Your task to perform on an android device: toggle location history Image 0: 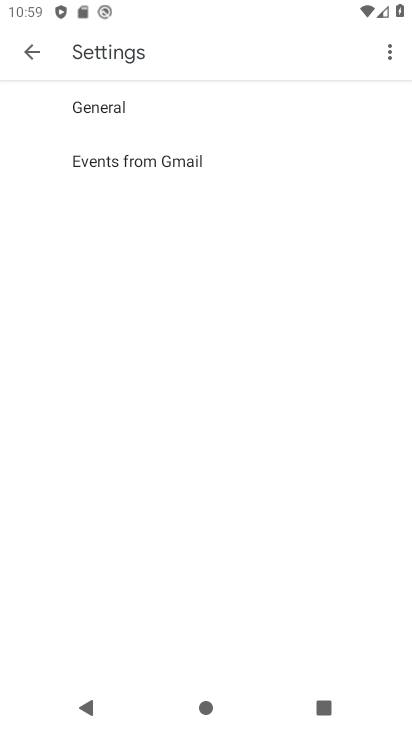
Step 0: press home button
Your task to perform on an android device: toggle location history Image 1: 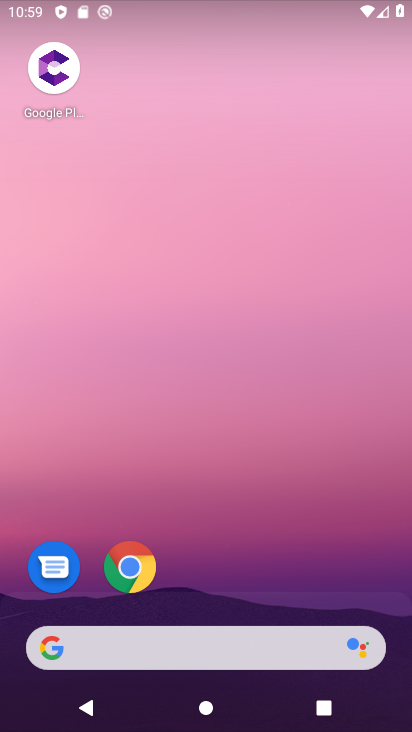
Step 1: drag from (196, 625) to (163, 18)
Your task to perform on an android device: toggle location history Image 2: 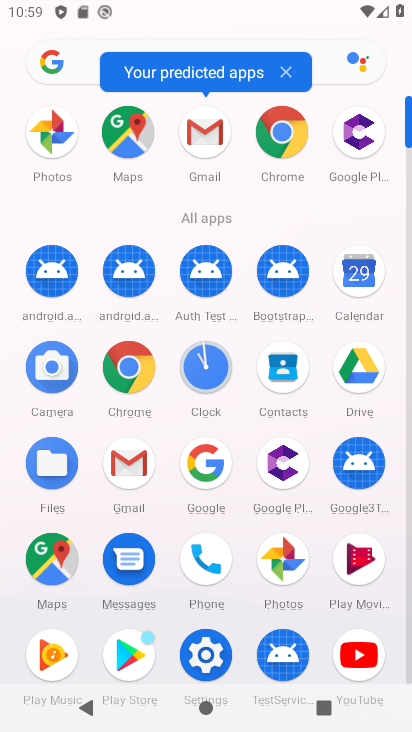
Step 2: click (211, 650)
Your task to perform on an android device: toggle location history Image 3: 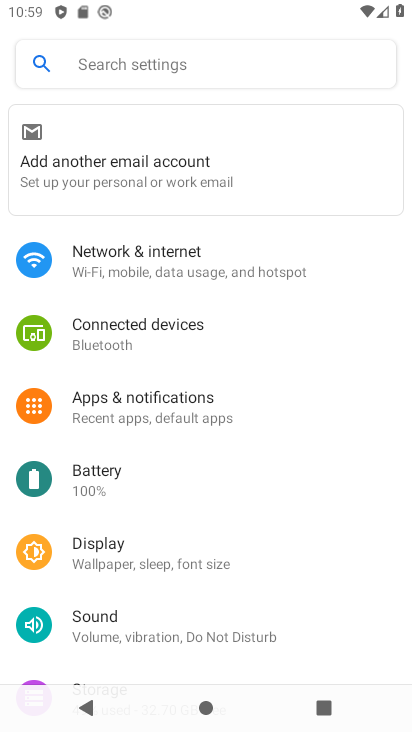
Step 3: drag from (148, 599) to (138, 108)
Your task to perform on an android device: toggle location history Image 4: 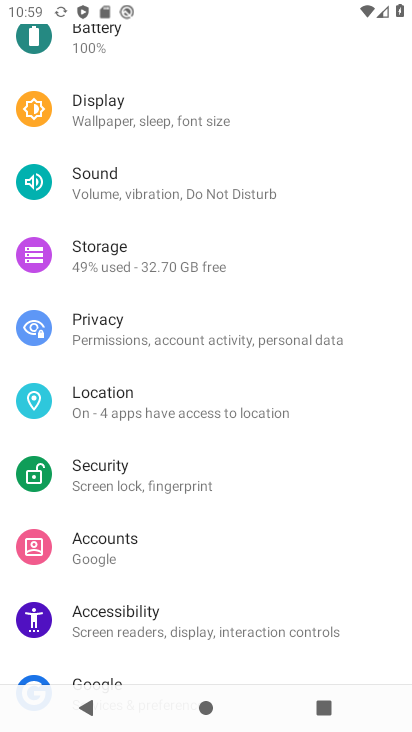
Step 4: click (106, 406)
Your task to perform on an android device: toggle location history Image 5: 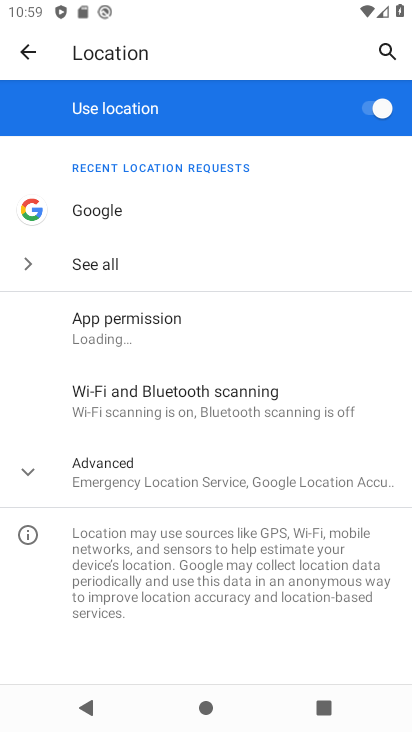
Step 5: click (116, 491)
Your task to perform on an android device: toggle location history Image 6: 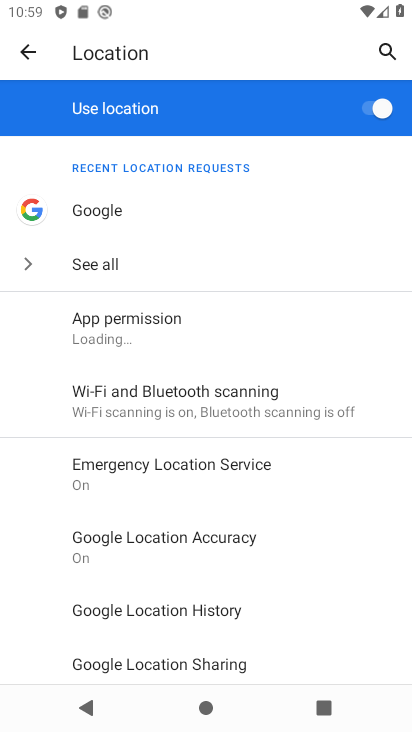
Step 6: click (164, 612)
Your task to perform on an android device: toggle location history Image 7: 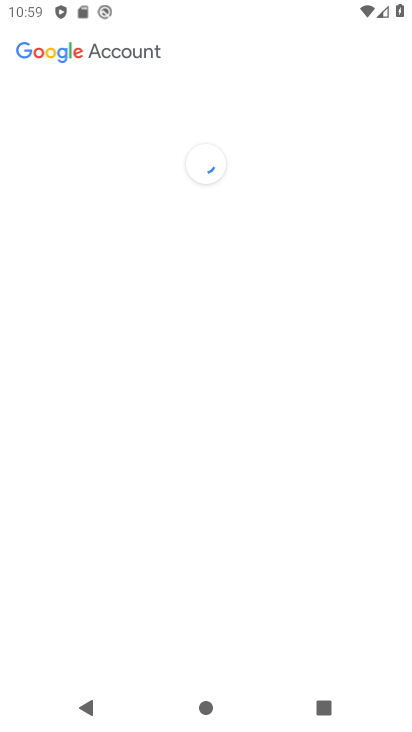
Step 7: drag from (265, 576) to (230, 97)
Your task to perform on an android device: toggle location history Image 8: 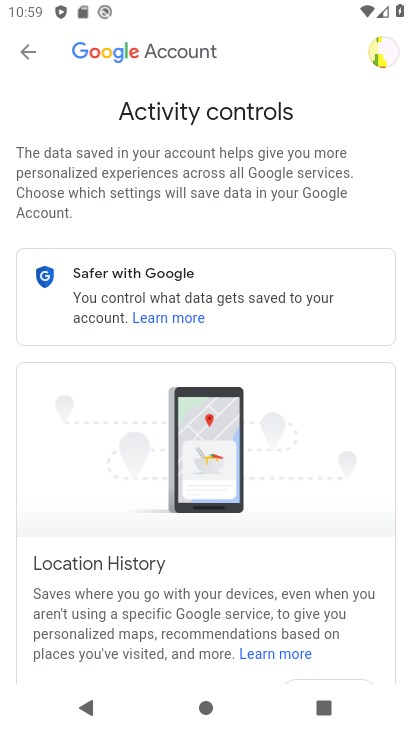
Step 8: drag from (244, 474) to (205, 86)
Your task to perform on an android device: toggle location history Image 9: 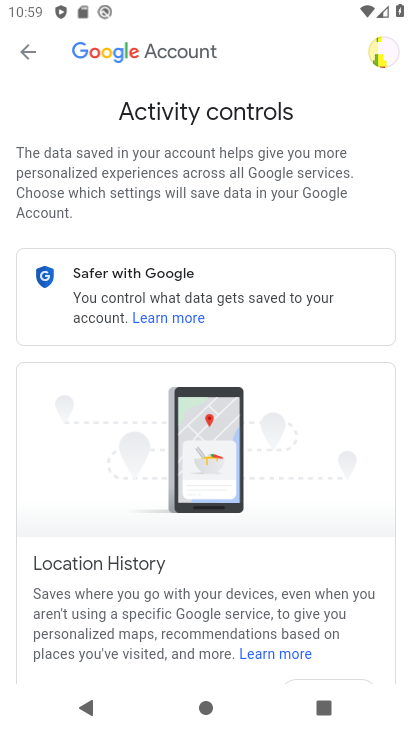
Step 9: drag from (210, 567) to (222, 99)
Your task to perform on an android device: toggle location history Image 10: 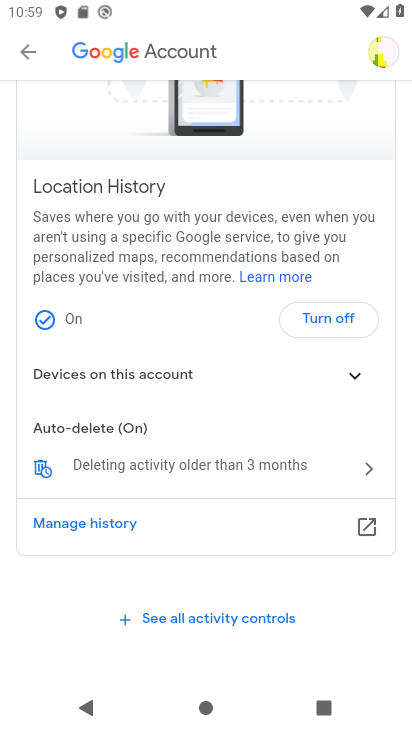
Step 10: click (316, 326)
Your task to perform on an android device: toggle location history Image 11: 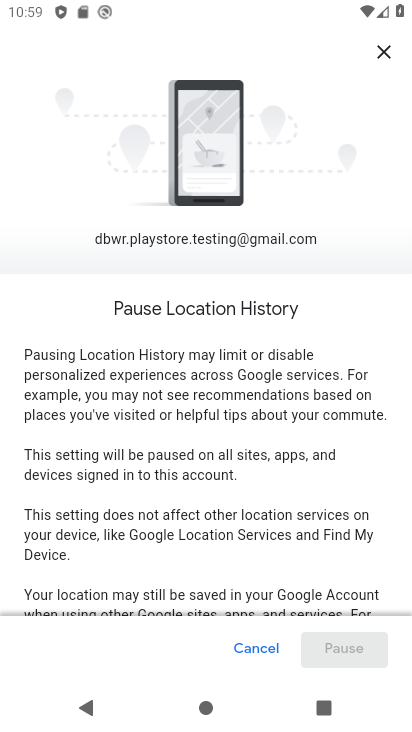
Step 11: drag from (337, 604) to (255, 3)
Your task to perform on an android device: toggle location history Image 12: 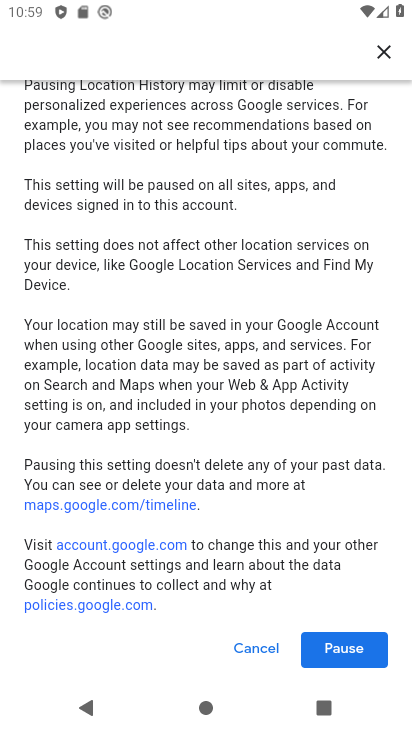
Step 12: click (329, 646)
Your task to perform on an android device: toggle location history Image 13: 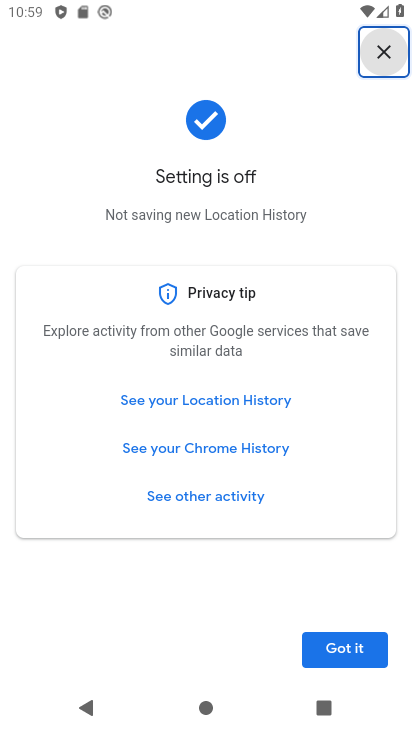
Step 13: click (350, 650)
Your task to perform on an android device: toggle location history Image 14: 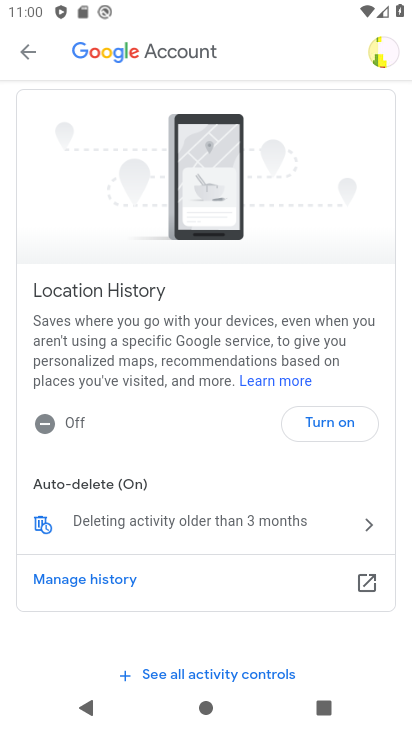
Step 14: click (316, 413)
Your task to perform on an android device: toggle location history Image 15: 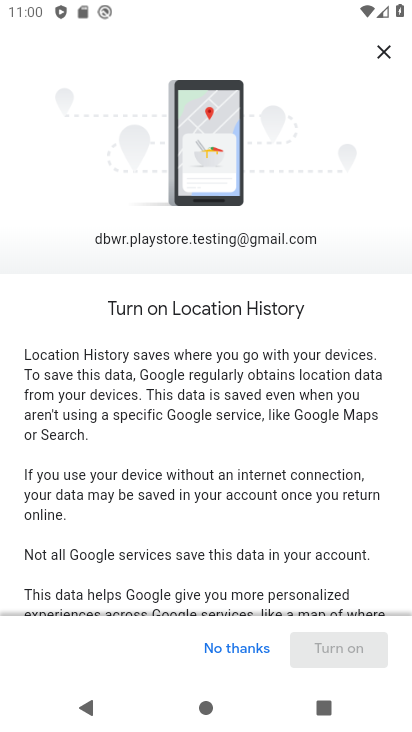
Step 15: drag from (333, 597) to (273, 118)
Your task to perform on an android device: toggle location history Image 16: 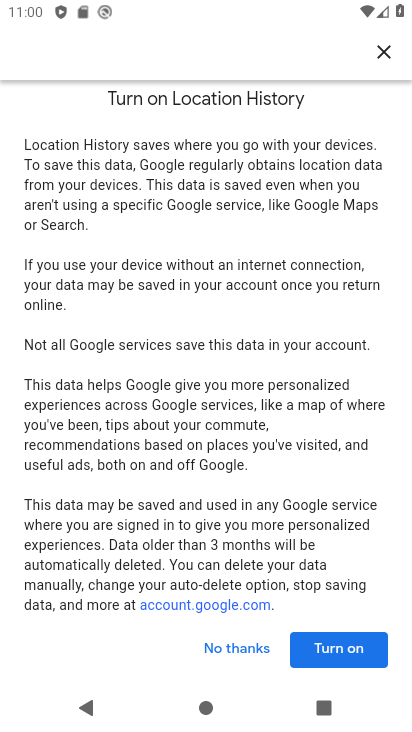
Step 16: click (325, 670)
Your task to perform on an android device: toggle location history Image 17: 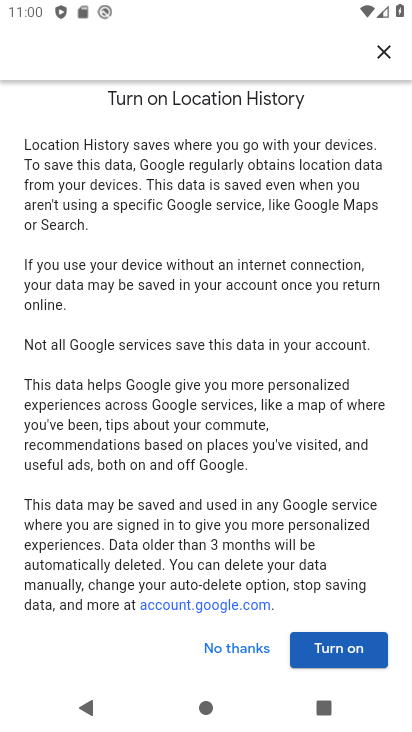
Step 17: click (328, 657)
Your task to perform on an android device: toggle location history Image 18: 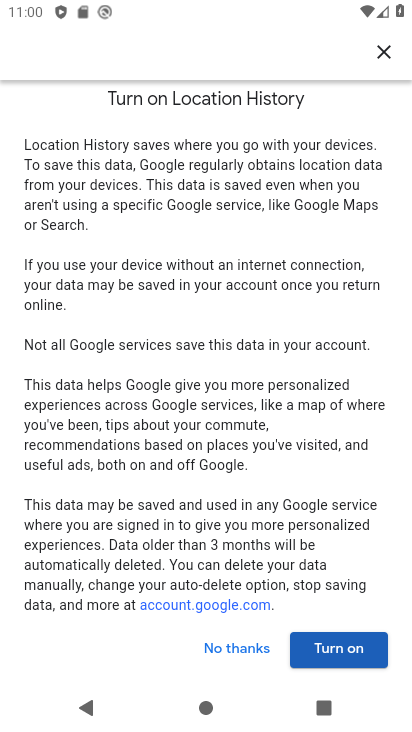
Step 18: click (317, 661)
Your task to perform on an android device: toggle location history Image 19: 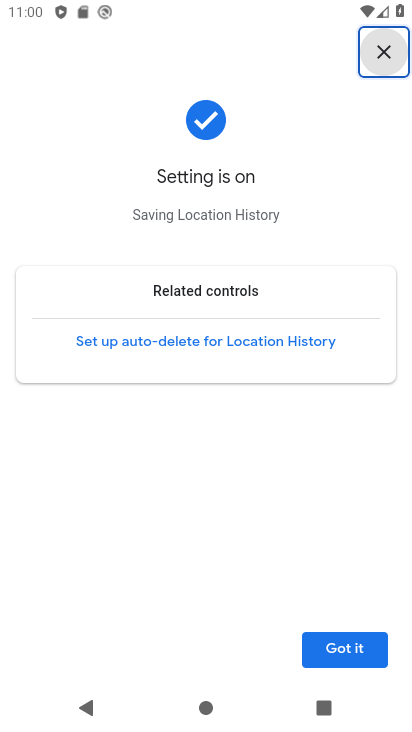
Step 19: click (349, 647)
Your task to perform on an android device: toggle location history Image 20: 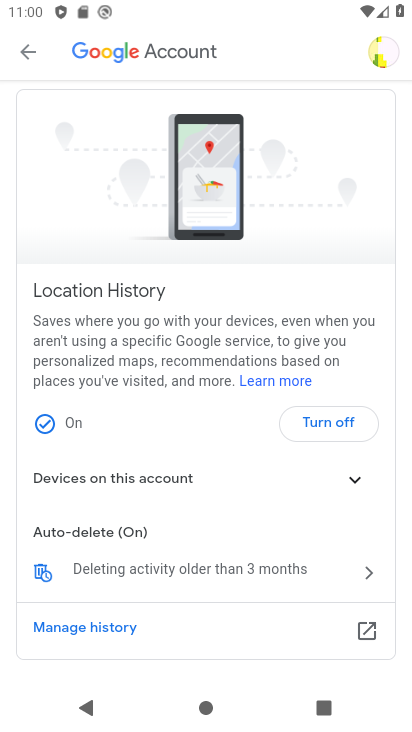
Step 20: task complete